Your task to perform on an android device: change alarm snooze length Image 0: 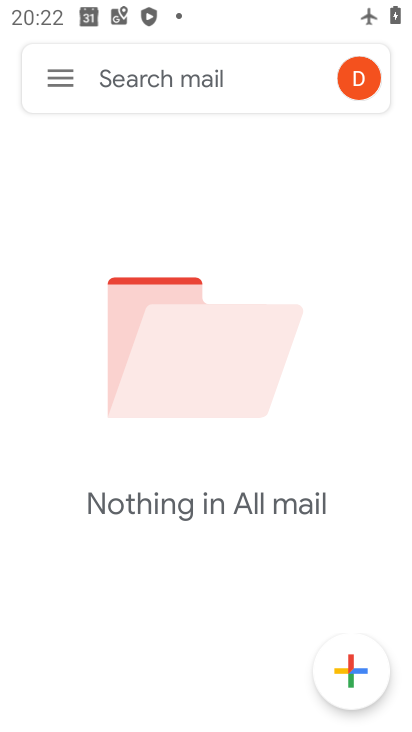
Step 0: press home button
Your task to perform on an android device: change alarm snooze length Image 1: 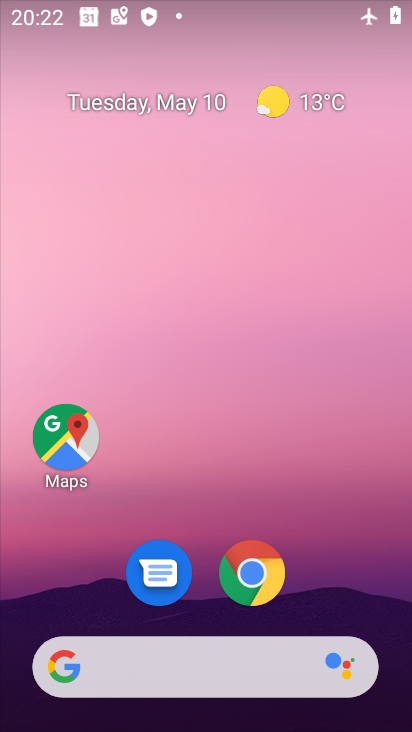
Step 1: drag from (332, 598) to (337, 7)
Your task to perform on an android device: change alarm snooze length Image 2: 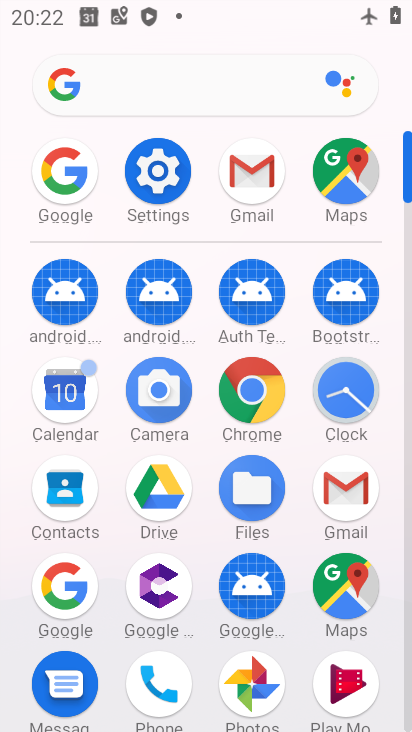
Step 2: click (339, 397)
Your task to perform on an android device: change alarm snooze length Image 3: 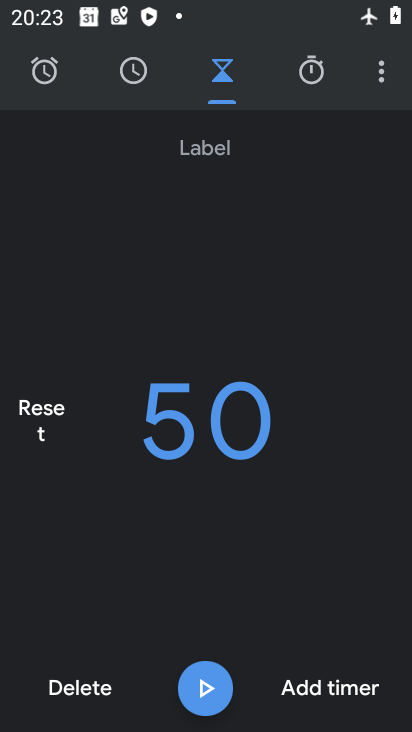
Step 3: click (383, 74)
Your task to perform on an android device: change alarm snooze length Image 4: 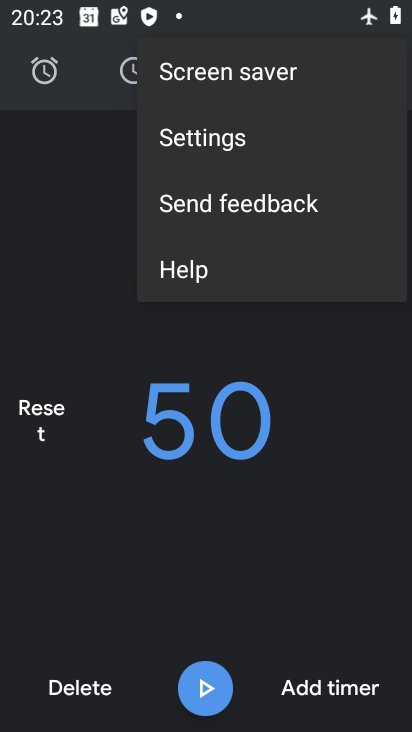
Step 4: click (242, 143)
Your task to perform on an android device: change alarm snooze length Image 5: 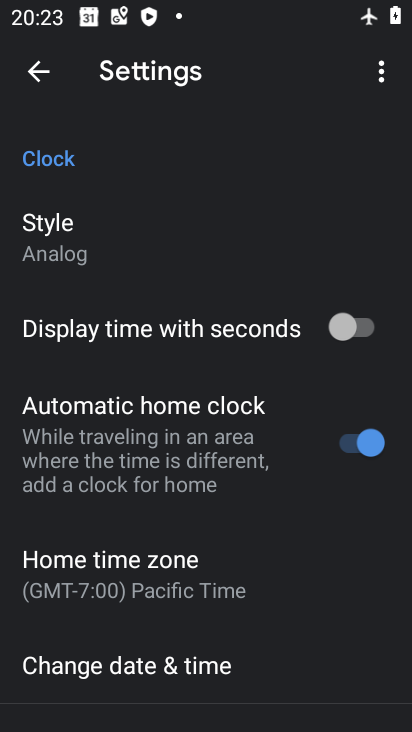
Step 5: drag from (116, 581) to (149, 69)
Your task to perform on an android device: change alarm snooze length Image 6: 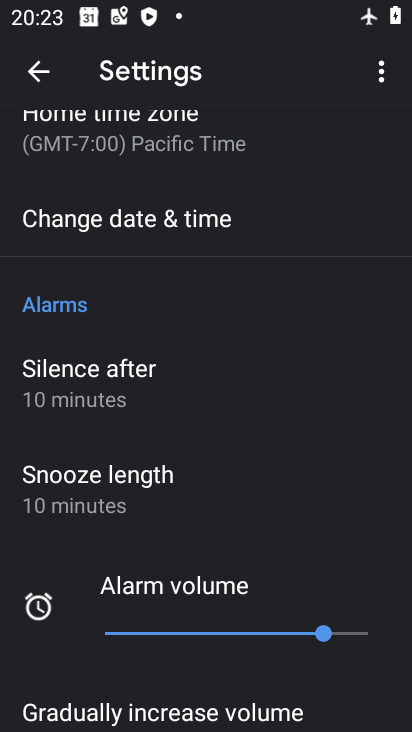
Step 6: click (89, 491)
Your task to perform on an android device: change alarm snooze length Image 7: 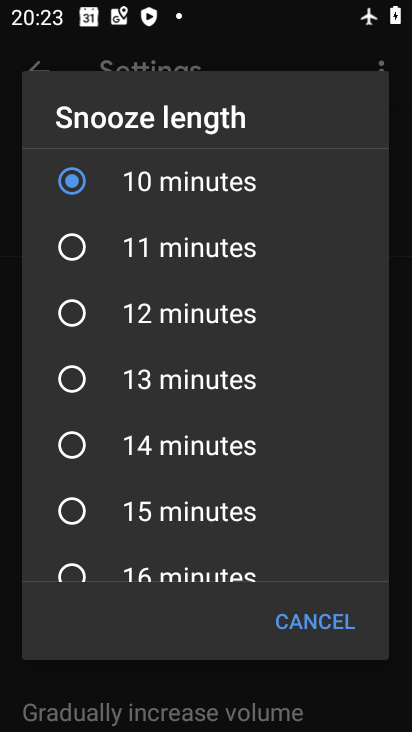
Step 7: click (61, 318)
Your task to perform on an android device: change alarm snooze length Image 8: 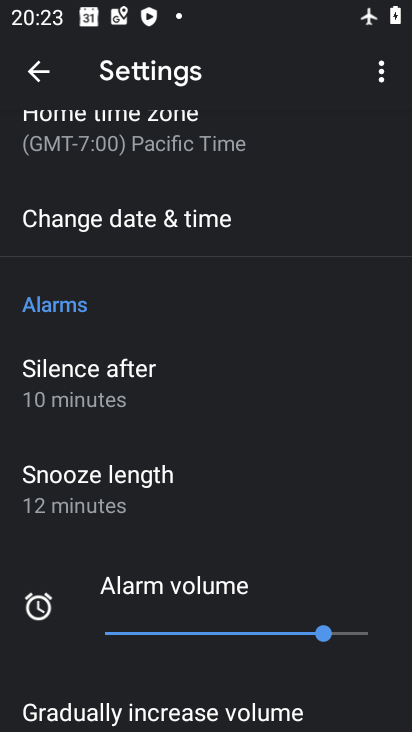
Step 8: task complete